Your task to perform on an android device: turn on wifi Image 0: 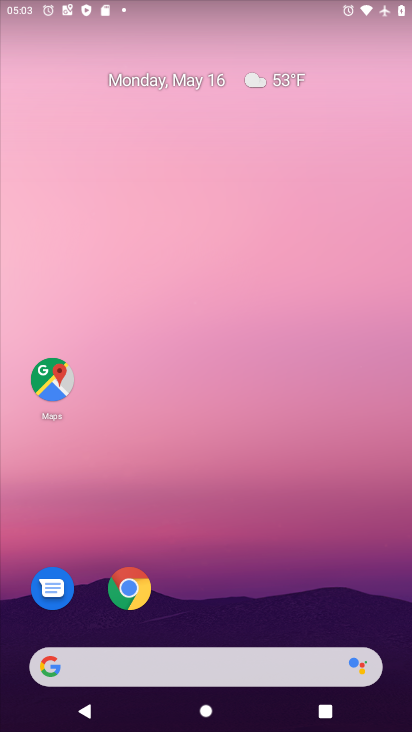
Step 0: drag from (219, 408) to (219, 29)
Your task to perform on an android device: turn on wifi Image 1: 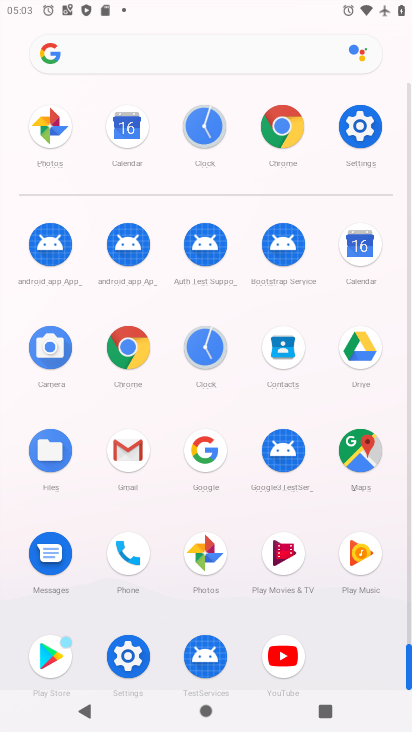
Step 1: click (125, 653)
Your task to perform on an android device: turn on wifi Image 2: 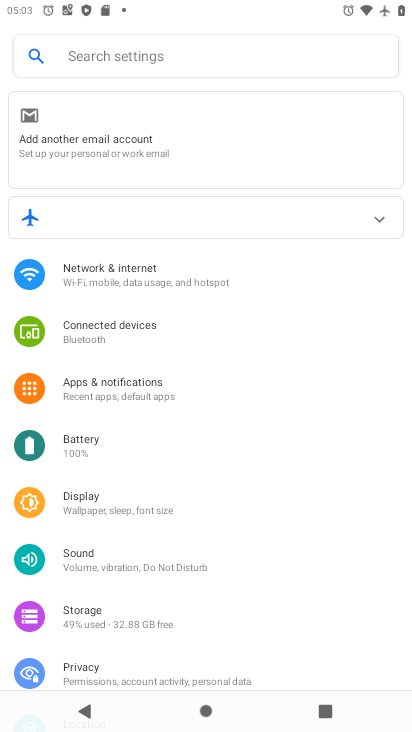
Step 2: click (176, 283)
Your task to perform on an android device: turn on wifi Image 3: 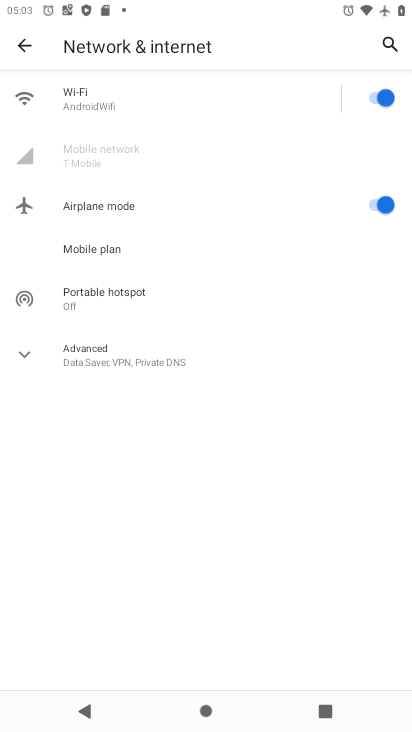
Step 3: click (39, 346)
Your task to perform on an android device: turn on wifi Image 4: 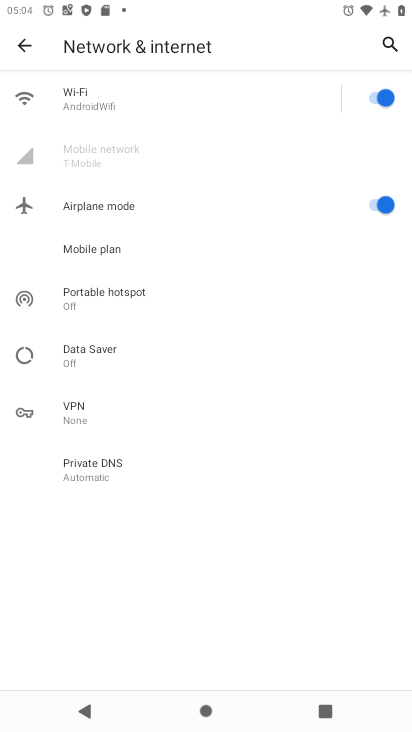
Step 4: task complete